Your task to perform on an android device: turn on priority inbox in the gmail app Image 0: 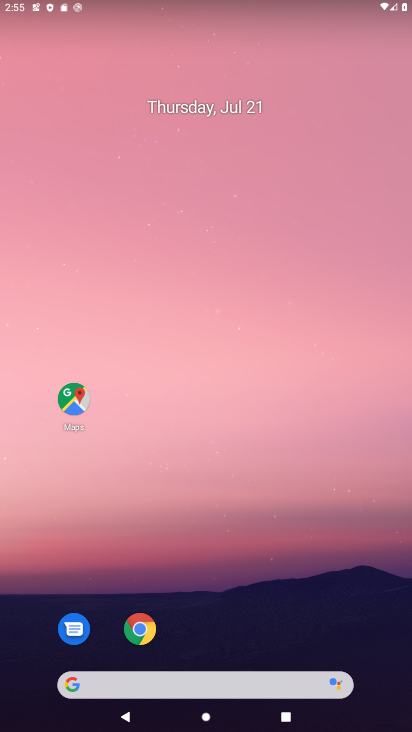
Step 0: drag from (387, 710) to (259, 5)
Your task to perform on an android device: turn on priority inbox in the gmail app Image 1: 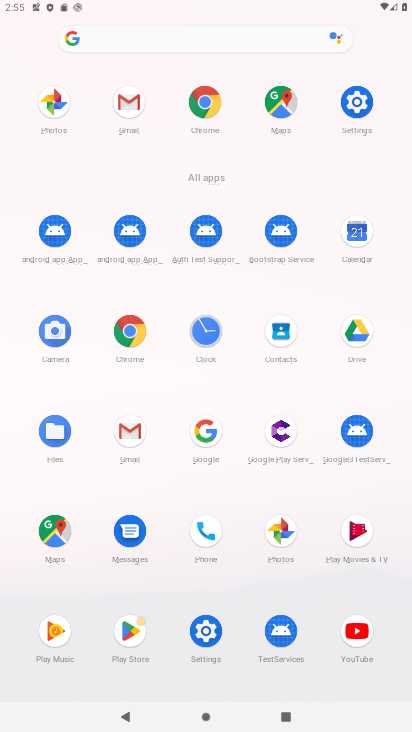
Step 1: click (134, 434)
Your task to perform on an android device: turn on priority inbox in the gmail app Image 2: 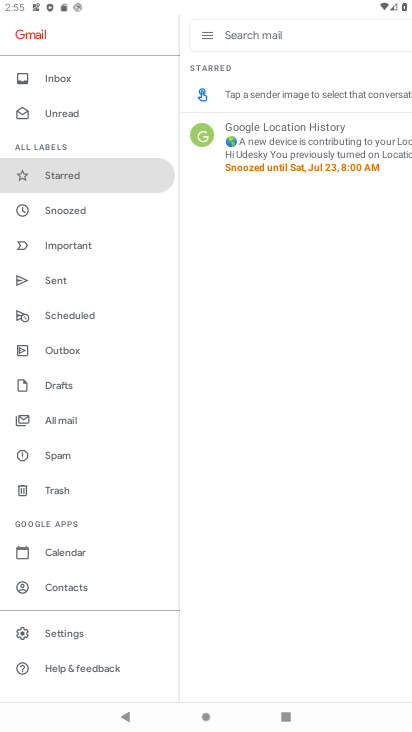
Step 2: click (39, 627)
Your task to perform on an android device: turn on priority inbox in the gmail app Image 3: 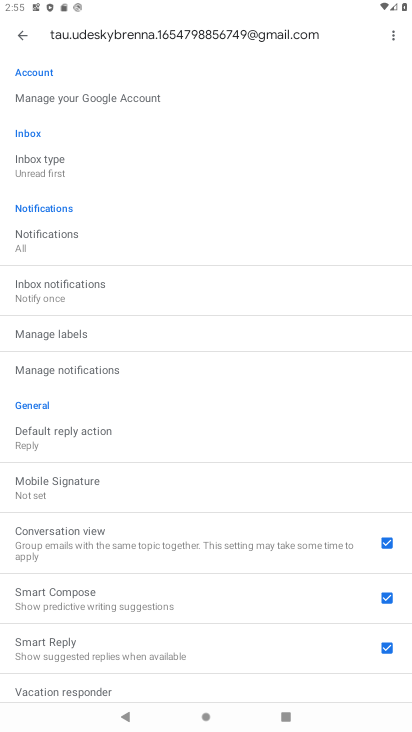
Step 3: click (28, 162)
Your task to perform on an android device: turn on priority inbox in the gmail app Image 4: 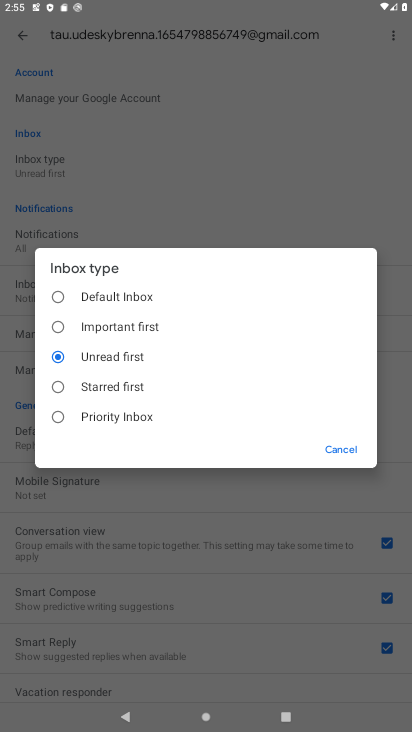
Step 4: click (83, 409)
Your task to perform on an android device: turn on priority inbox in the gmail app Image 5: 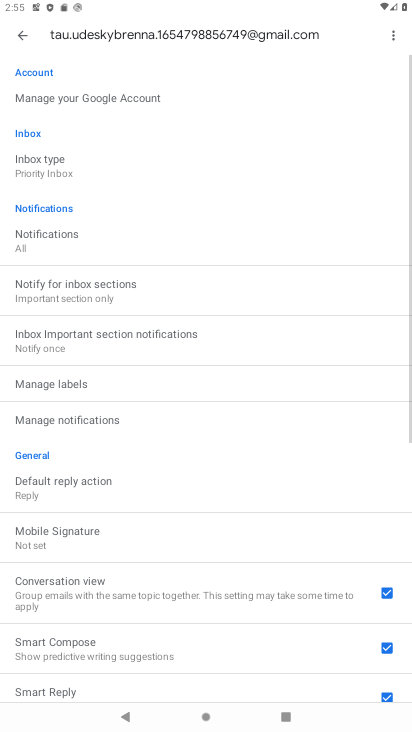
Step 5: task complete